Your task to perform on an android device: turn off airplane mode Image 0: 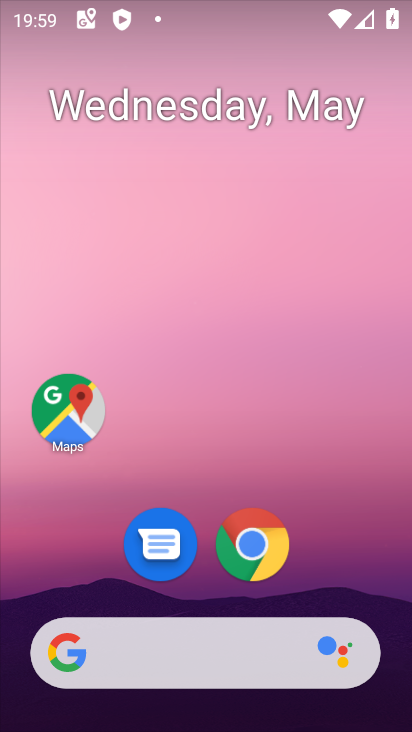
Step 0: drag from (262, 1) to (179, 695)
Your task to perform on an android device: turn off airplane mode Image 1: 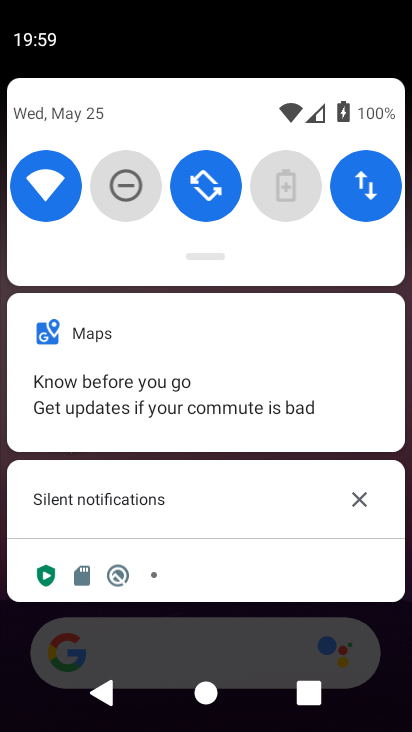
Step 1: task complete